Your task to perform on an android device: remove spam from my inbox in the gmail app Image 0: 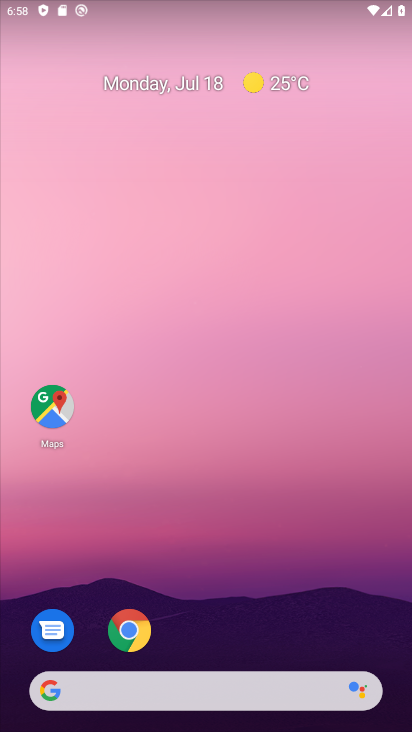
Step 0: drag from (227, 695) to (160, 172)
Your task to perform on an android device: remove spam from my inbox in the gmail app Image 1: 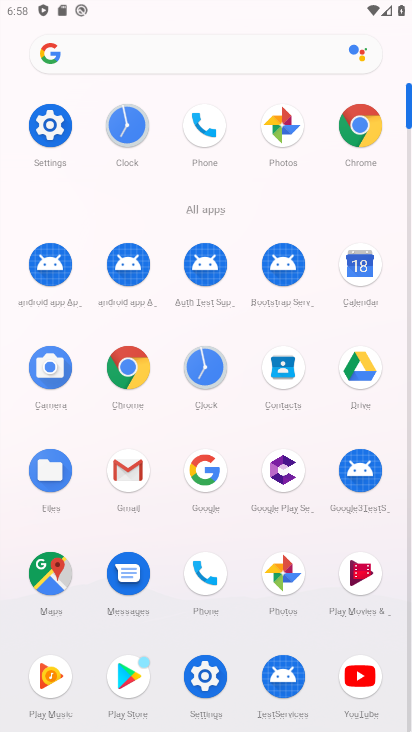
Step 1: click (138, 472)
Your task to perform on an android device: remove spam from my inbox in the gmail app Image 2: 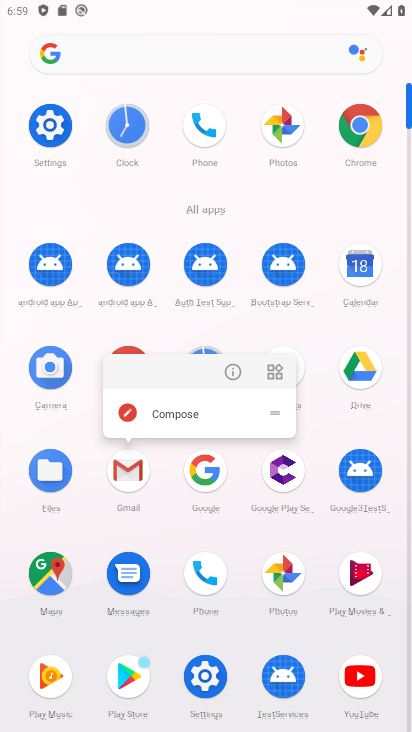
Step 2: click (120, 487)
Your task to perform on an android device: remove spam from my inbox in the gmail app Image 3: 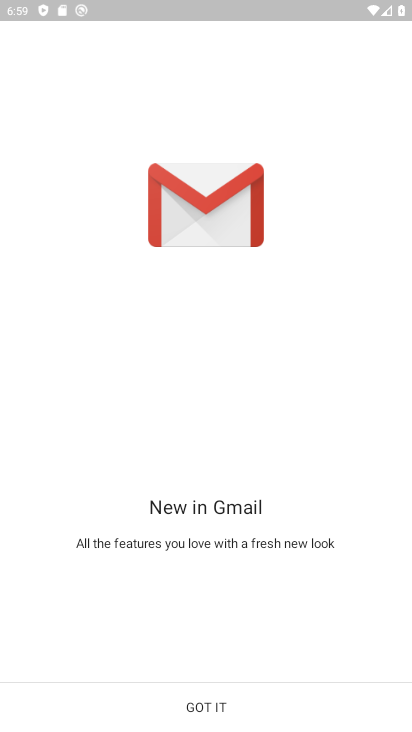
Step 3: click (230, 699)
Your task to perform on an android device: remove spam from my inbox in the gmail app Image 4: 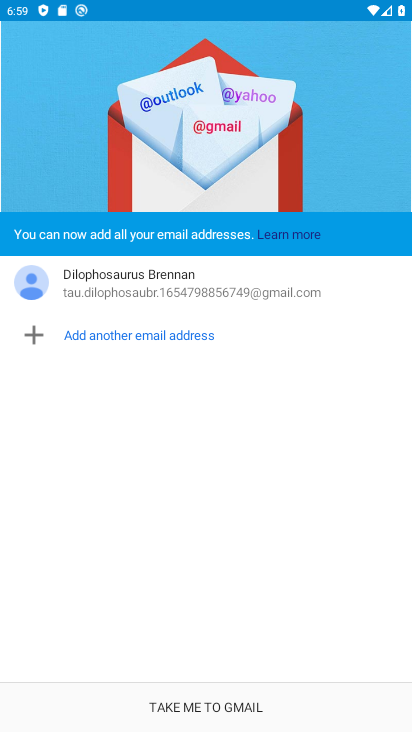
Step 4: click (243, 699)
Your task to perform on an android device: remove spam from my inbox in the gmail app Image 5: 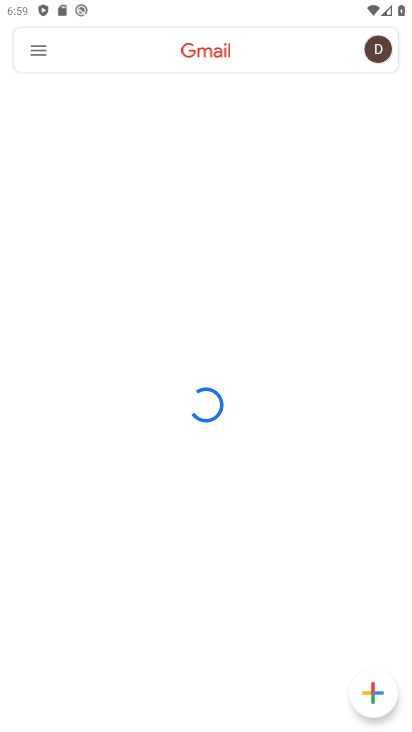
Step 5: click (21, 62)
Your task to perform on an android device: remove spam from my inbox in the gmail app Image 6: 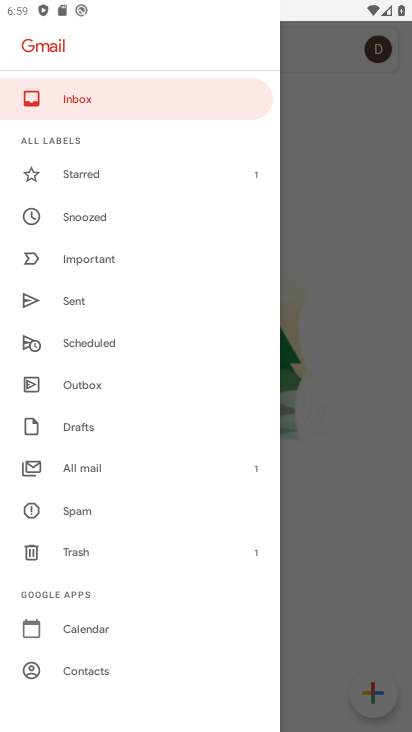
Step 6: click (92, 507)
Your task to perform on an android device: remove spam from my inbox in the gmail app Image 7: 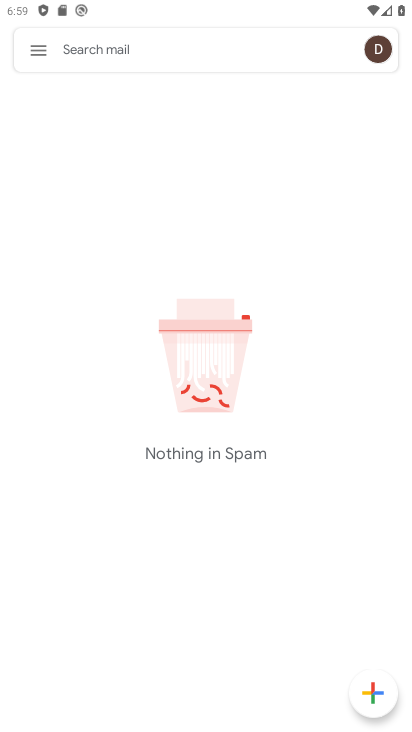
Step 7: task complete